Your task to perform on an android device: What's the weather today? Image 0: 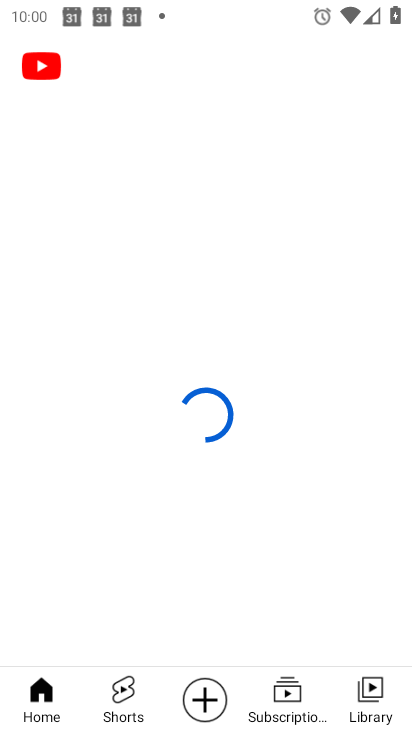
Step 0: drag from (397, 191) to (410, 142)
Your task to perform on an android device: What's the weather today? Image 1: 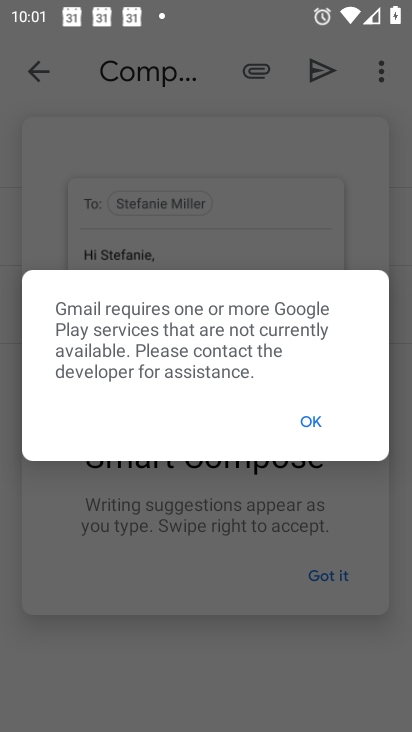
Step 1: press home button
Your task to perform on an android device: What's the weather today? Image 2: 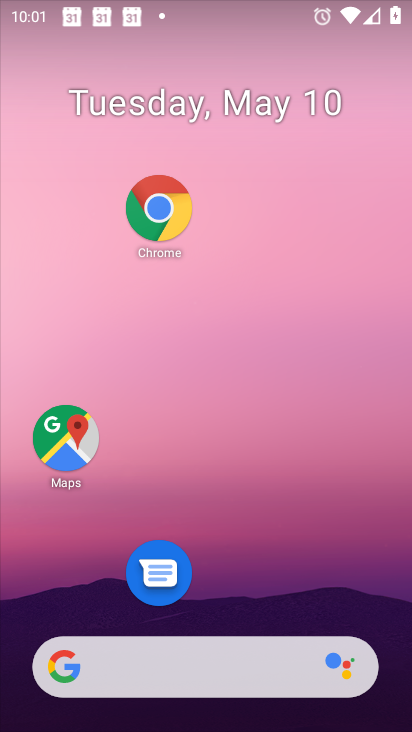
Step 2: drag from (280, 692) to (411, 126)
Your task to perform on an android device: What's the weather today? Image 3: 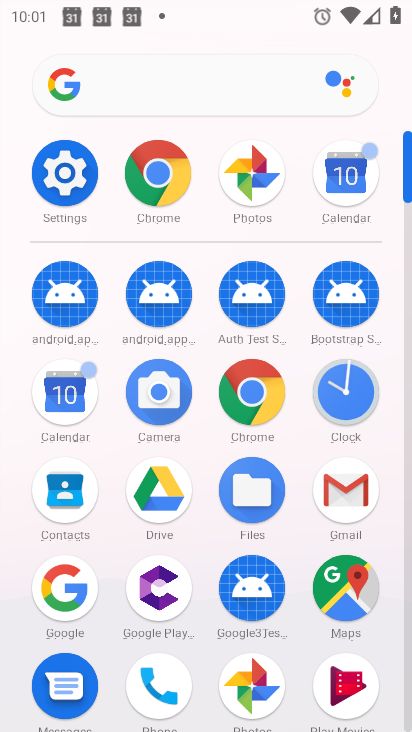
Step 3: click (182, 75)
Your task to perform on an android device: What's the weather today? Image 4: 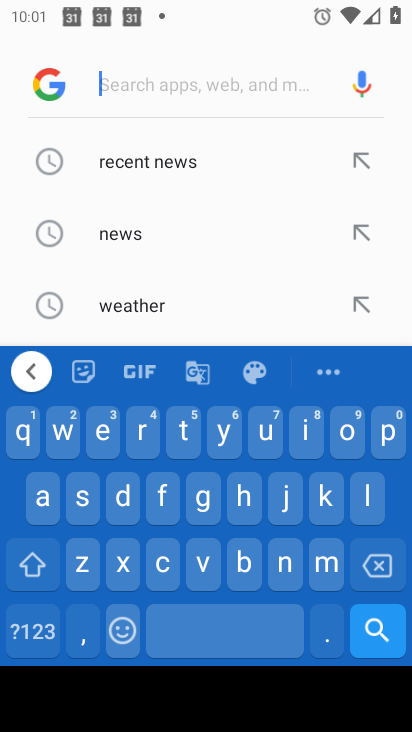
Step 4: click (144, 299)
Your task to perform on an android device: What's the weather today? Image 5: 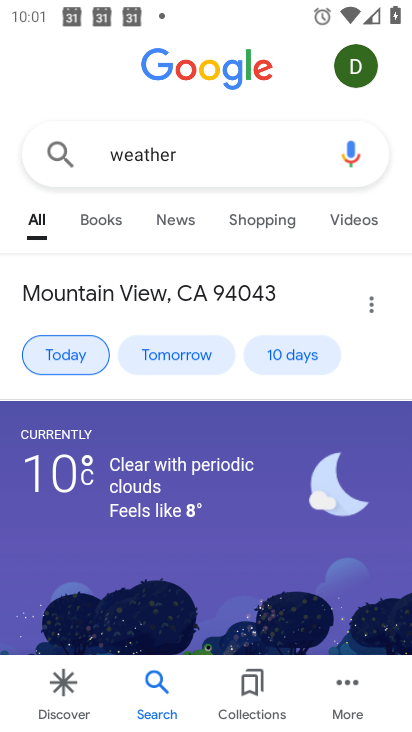
Step 5: task complete